Your task to perform on an android device: Add razer nari to the cart on ebay.com, then select checkout. Image 0: 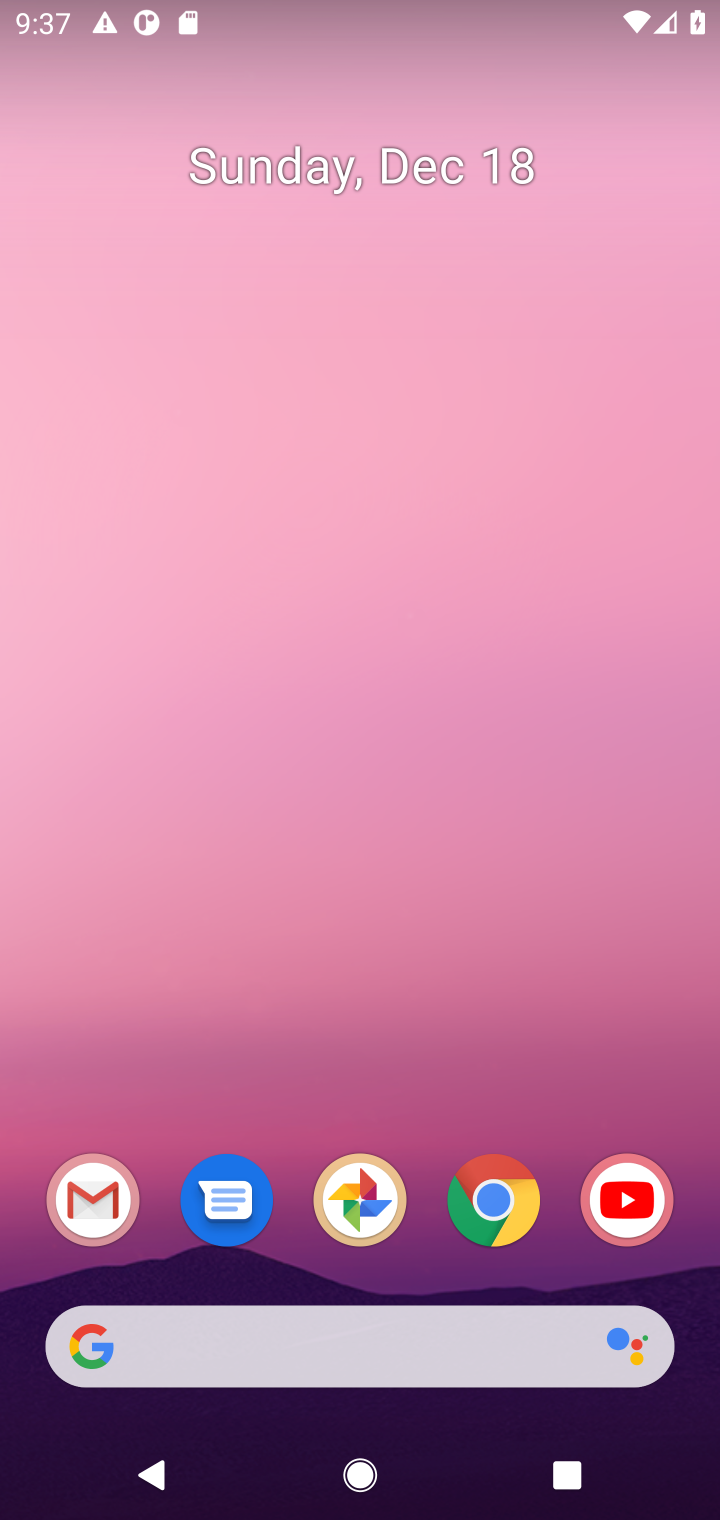
Step 0: click (490, 1211)
Your task to perform on an android device: Add razer nari to the cart on ebay.com, then select checkout. Image 1: 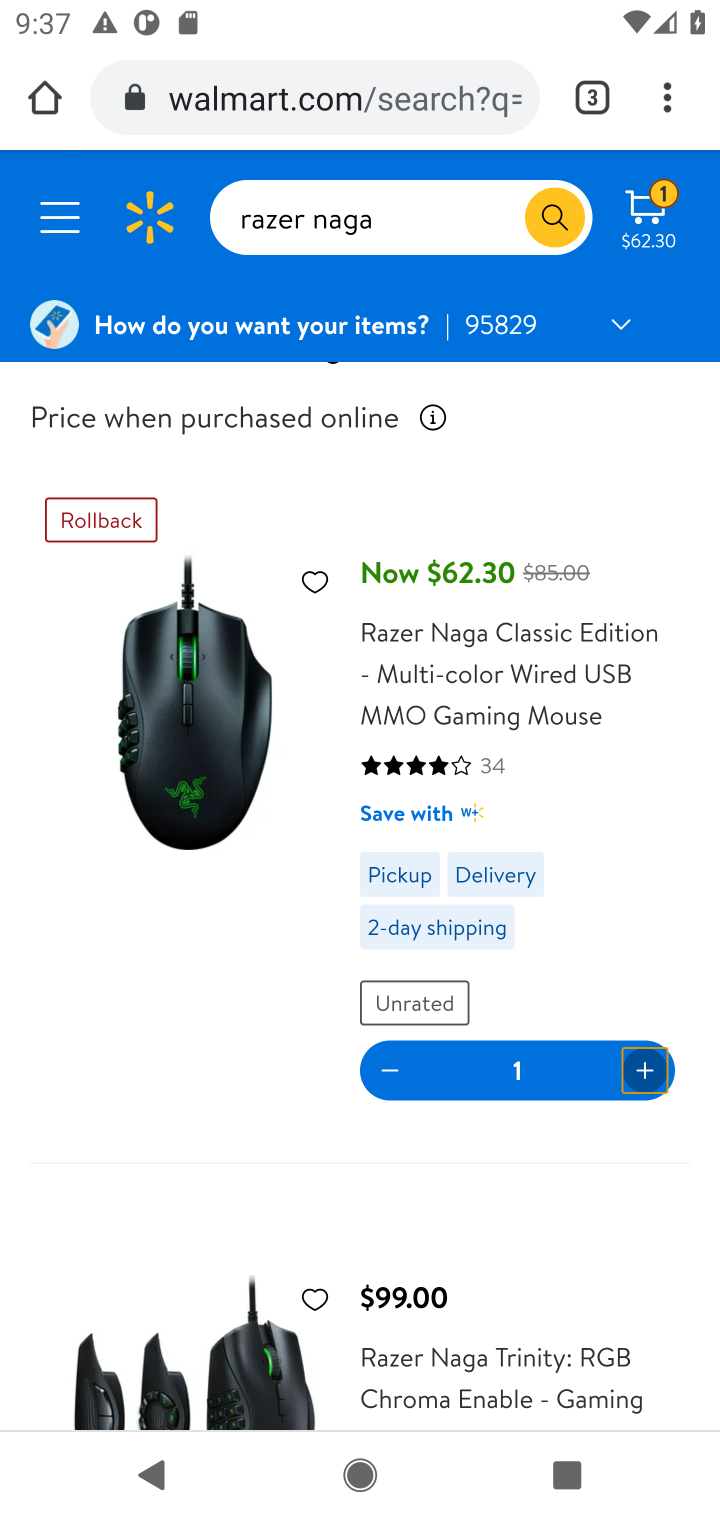
Step 1: click (244, 104)
Your task to perform on an android device: Add razer nari to the cart on ebay.com, then select checkout. Image 2: 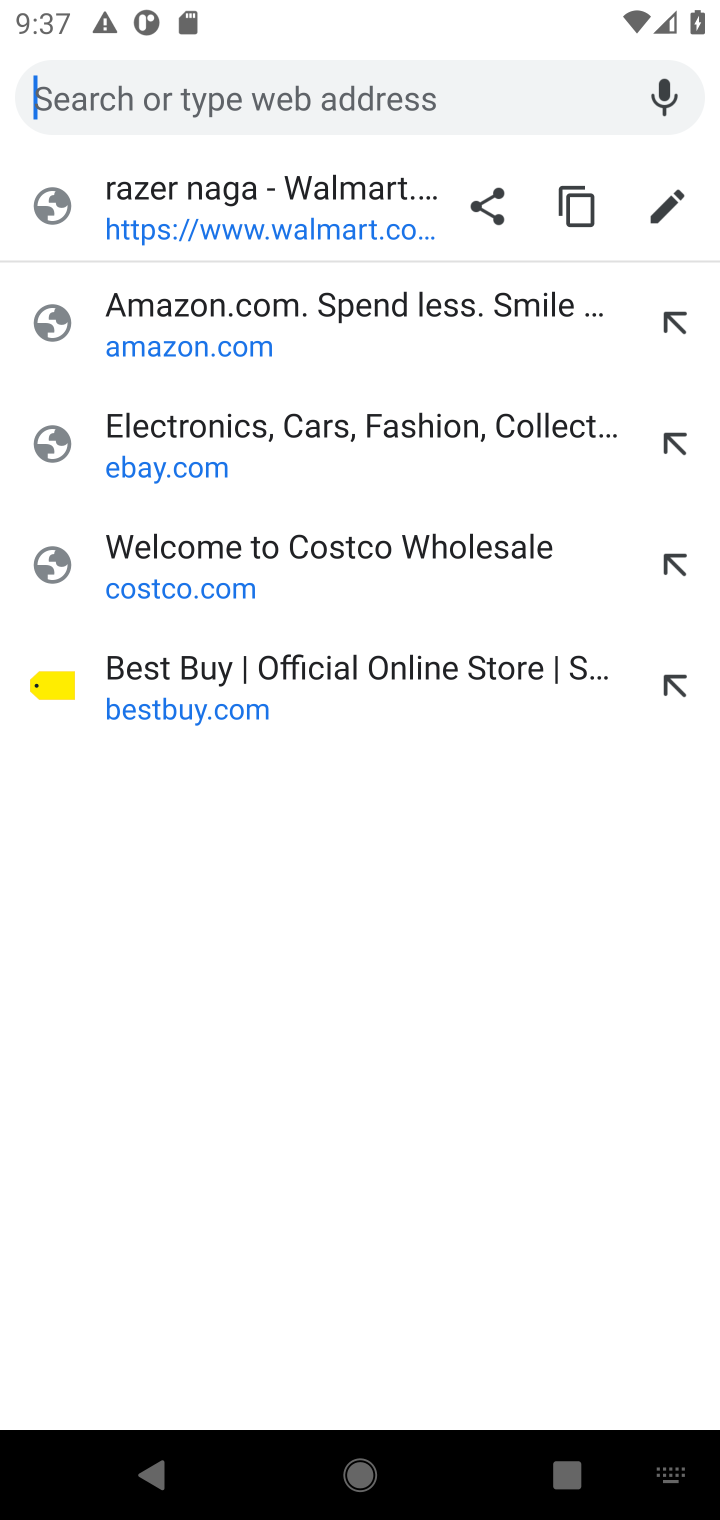
Step 2: click (160, 449)
Your task to perform on an android device: Add razer nari to the cart on ebay.com, then select checkout. Image 3: 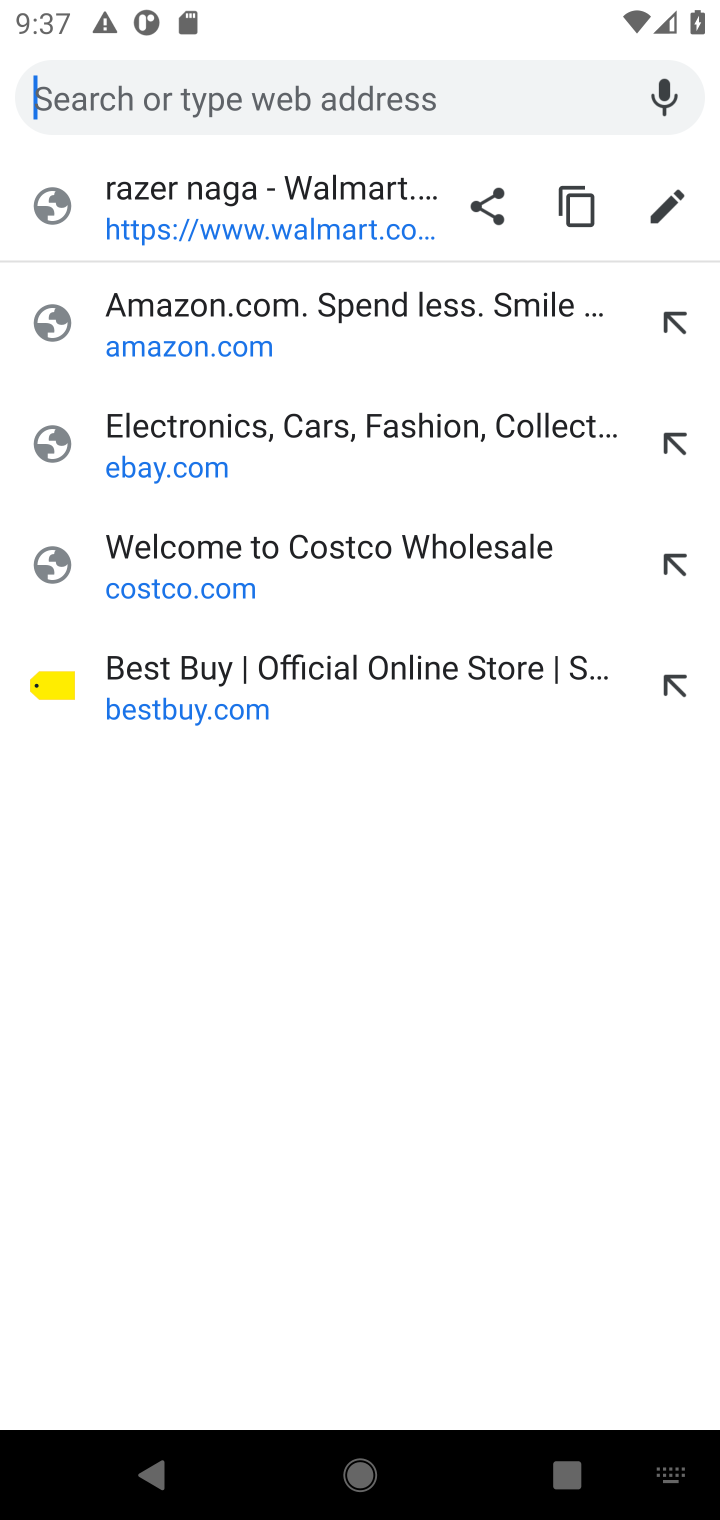
Step 3: click (168, 450)
Your task to perform on an android device: Add razer nari to the cart on ebay.com, then select checkout. Image 4: 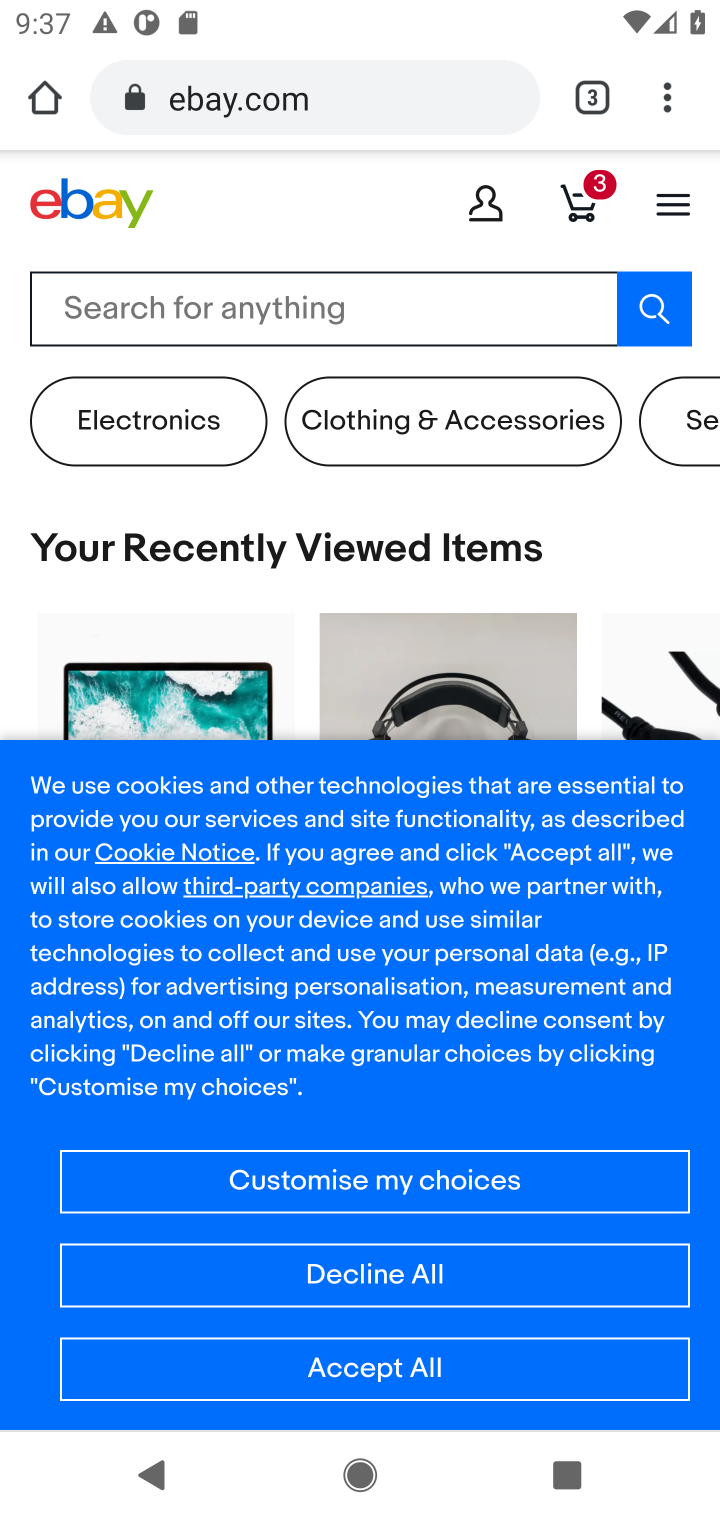
Step 4: click (149, 305)
Your task to perform on an android device: Add razer nari to the cart on ebay.com, then select checkout. Image 5: 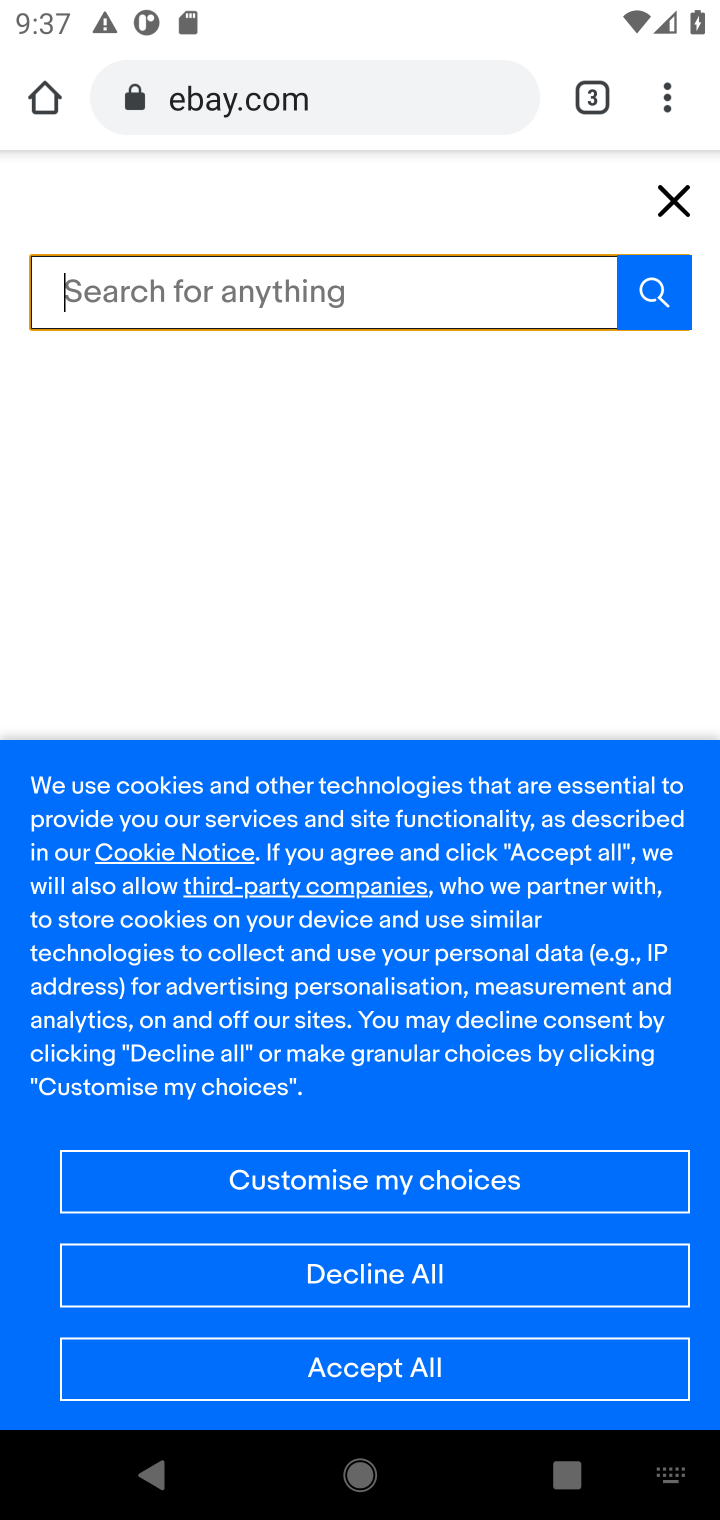
Step 5: type "razer nari "
Your task to perform on an android device: Add razer nari to the cart on ebay.com, then select checkout. Image 6: 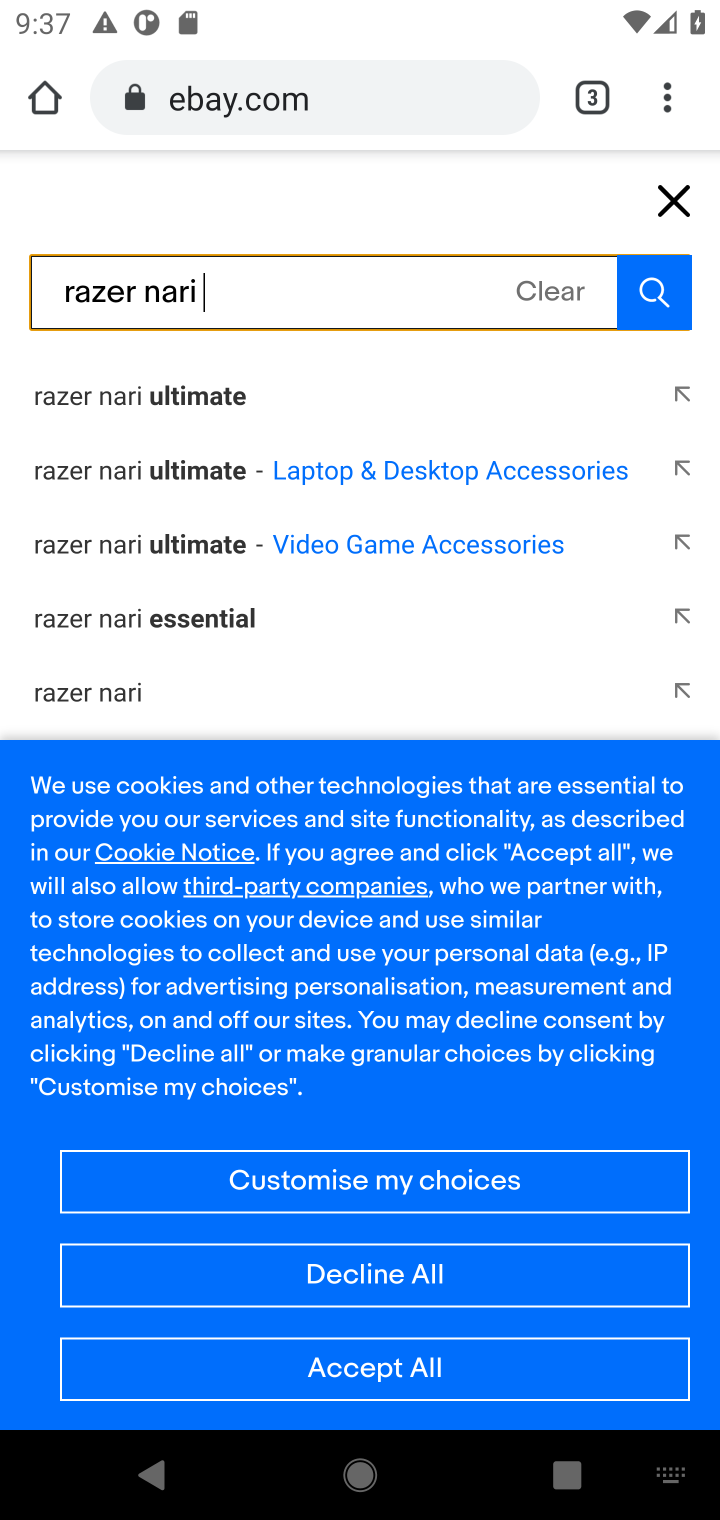
Step 6: click (99, 710)
Your task to perform on an android device: Add razer nari to the cart on ebay.com, then select checkout. Image 7: 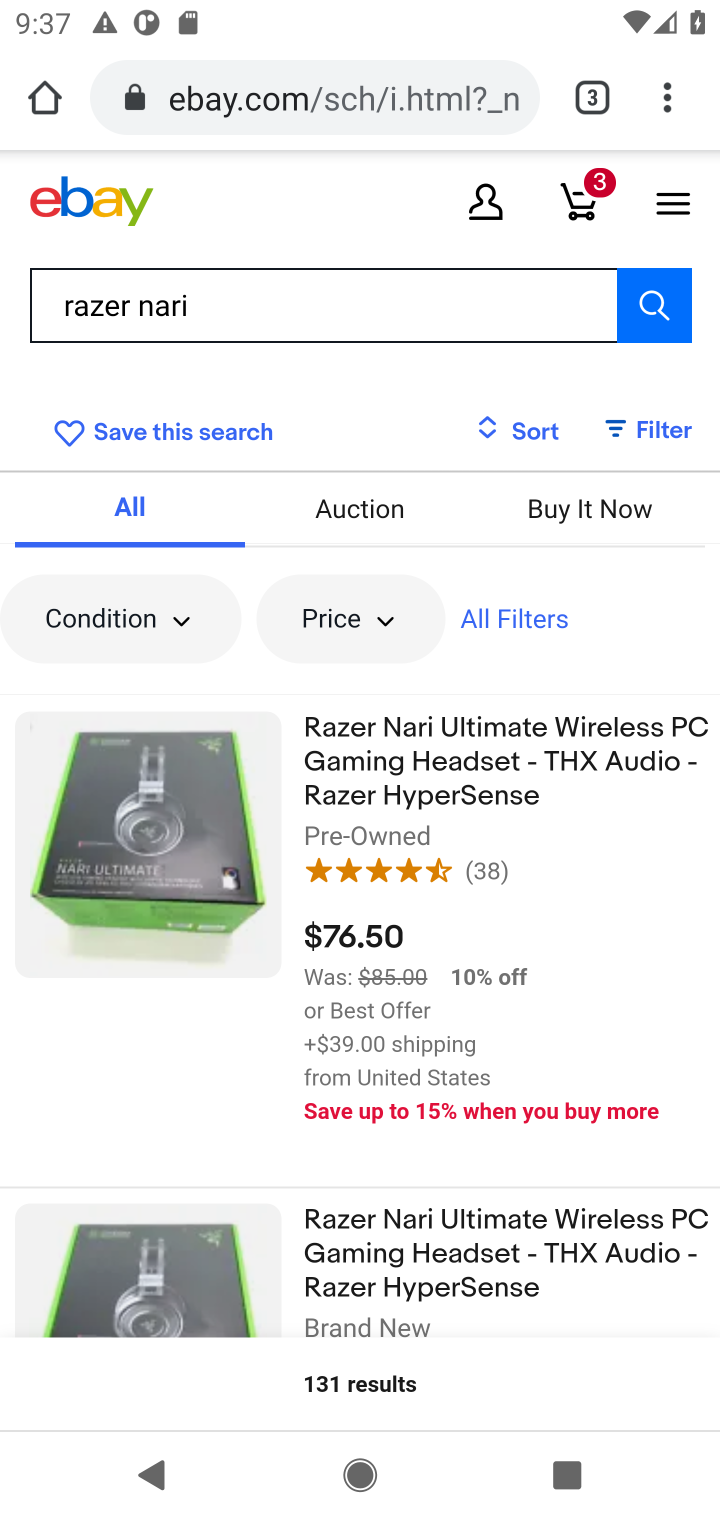
Step 7: click (452, 801)
Your task to perform on an android device: Add razer nari to the cart on ebay.com, then select checkout. Image 8: 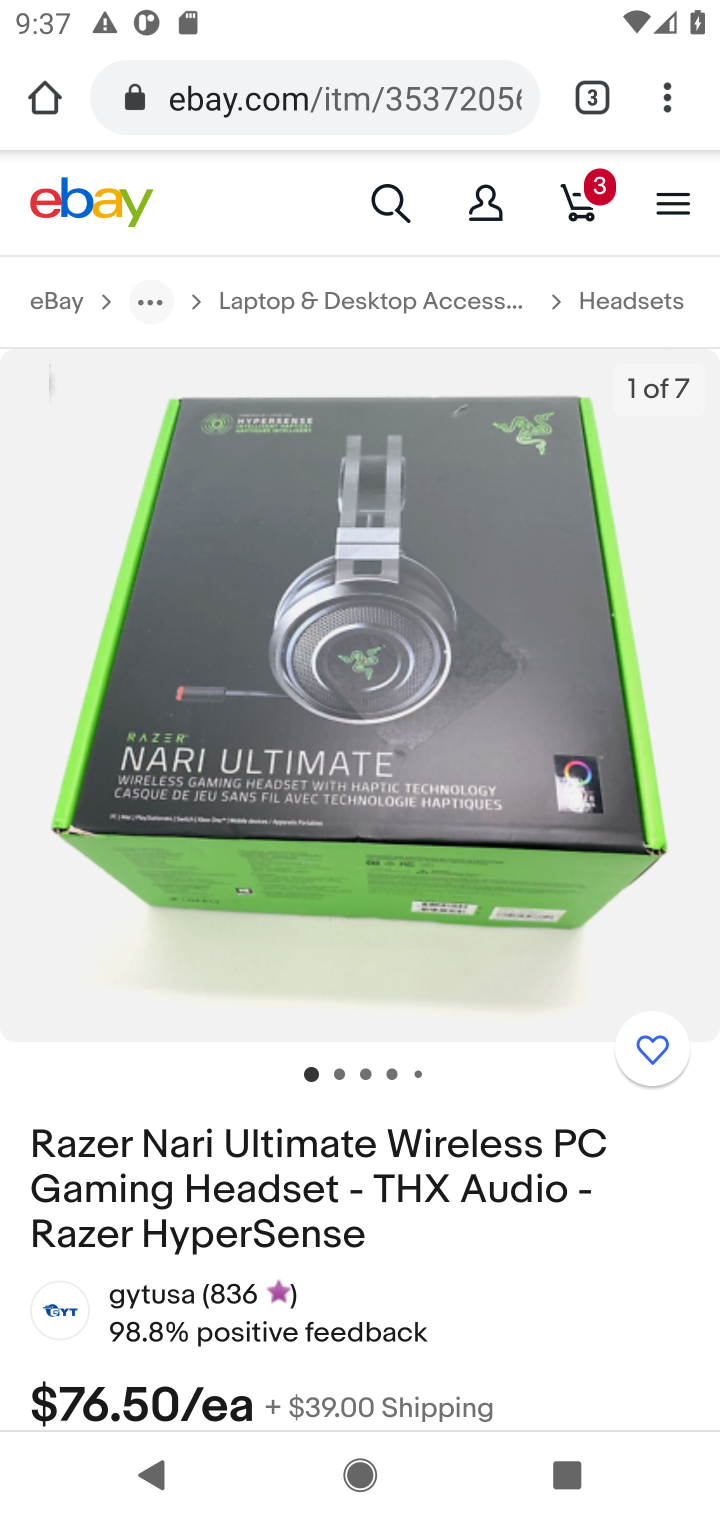
Step 8: drag from (281, 966) to (270, 478)
Your task to perform on an android device: Add razer nari to the cart on ebay.com, then select checkout. Image 9: 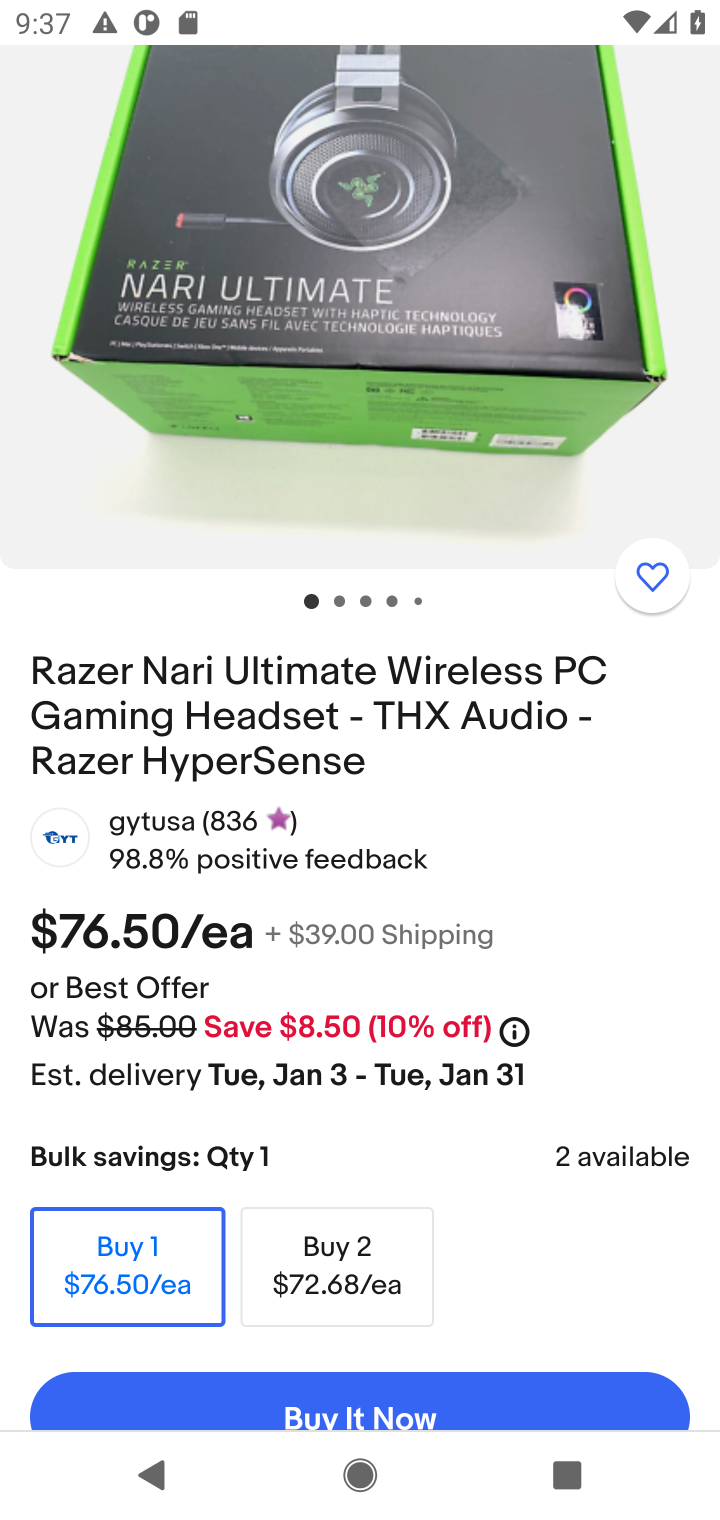
Step 9: drag from (341, 1036) to (341, 392)
Your task to perform on an android device: Add razer nari to the cart on ebay.com, then select checkout. Image 10: 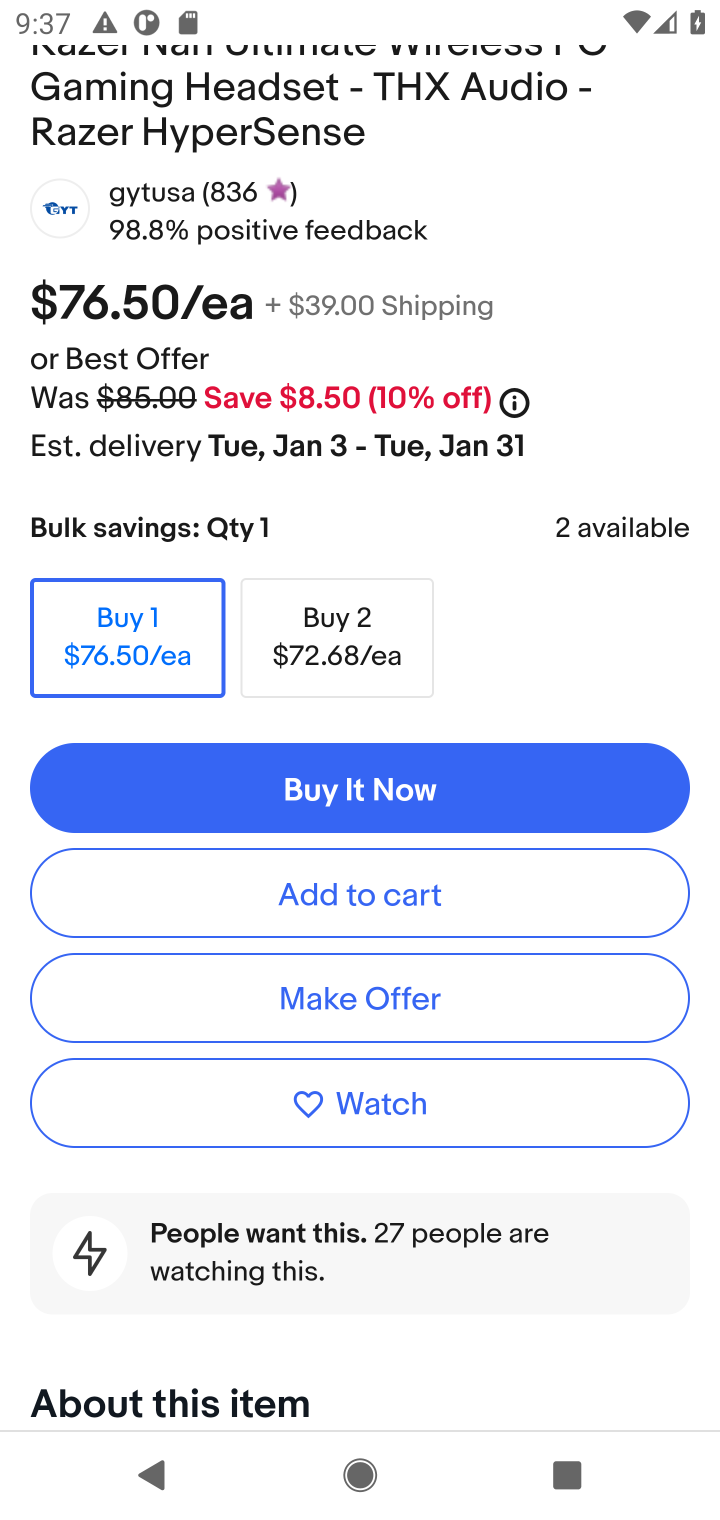
Step 10: click (311, 876)
Your task to perform on an android device: Add razer nari to the cart on ebay.com, then select checkout. Image 11: 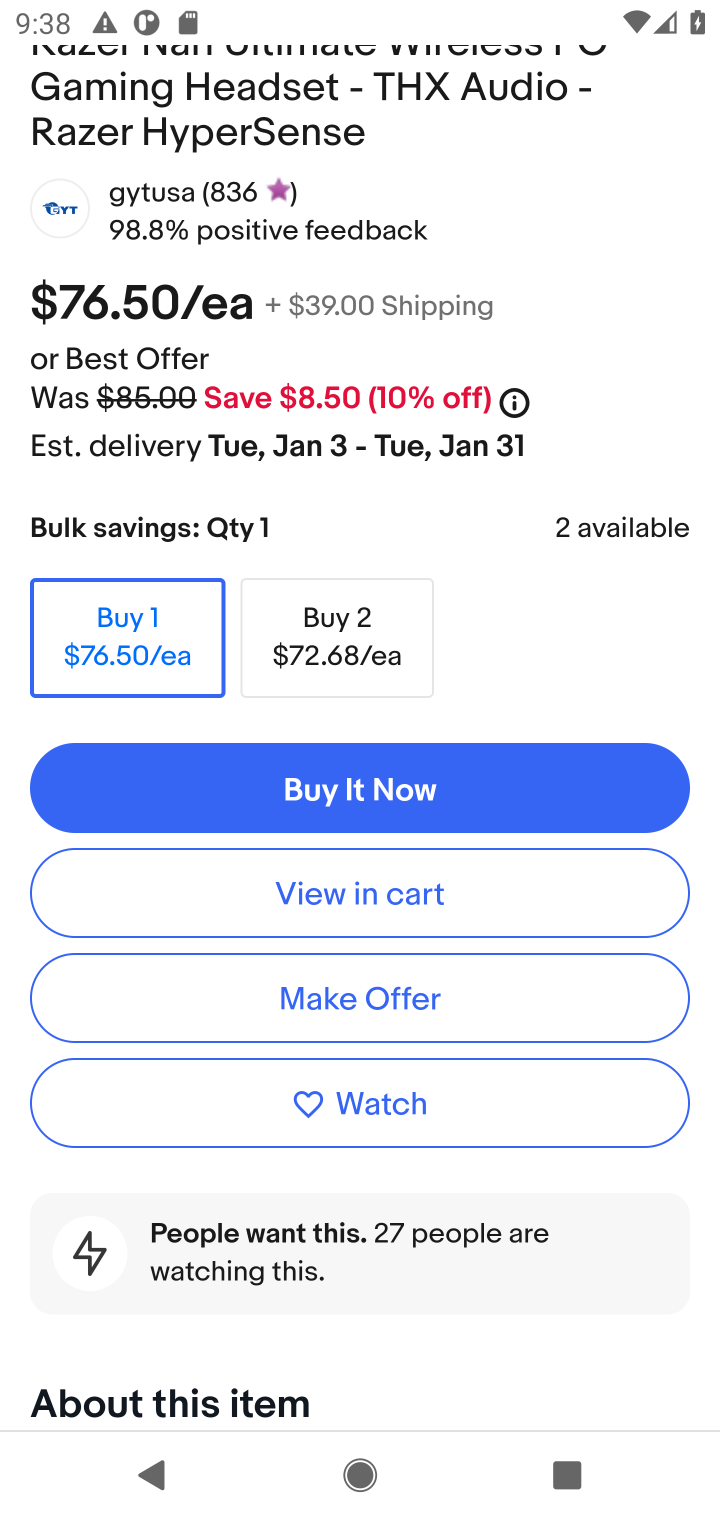
Step 11: click (305, 892)
Your task to perform on an android device: Add razer nari to the cart on ebay.com, then select checkout. Image 12: 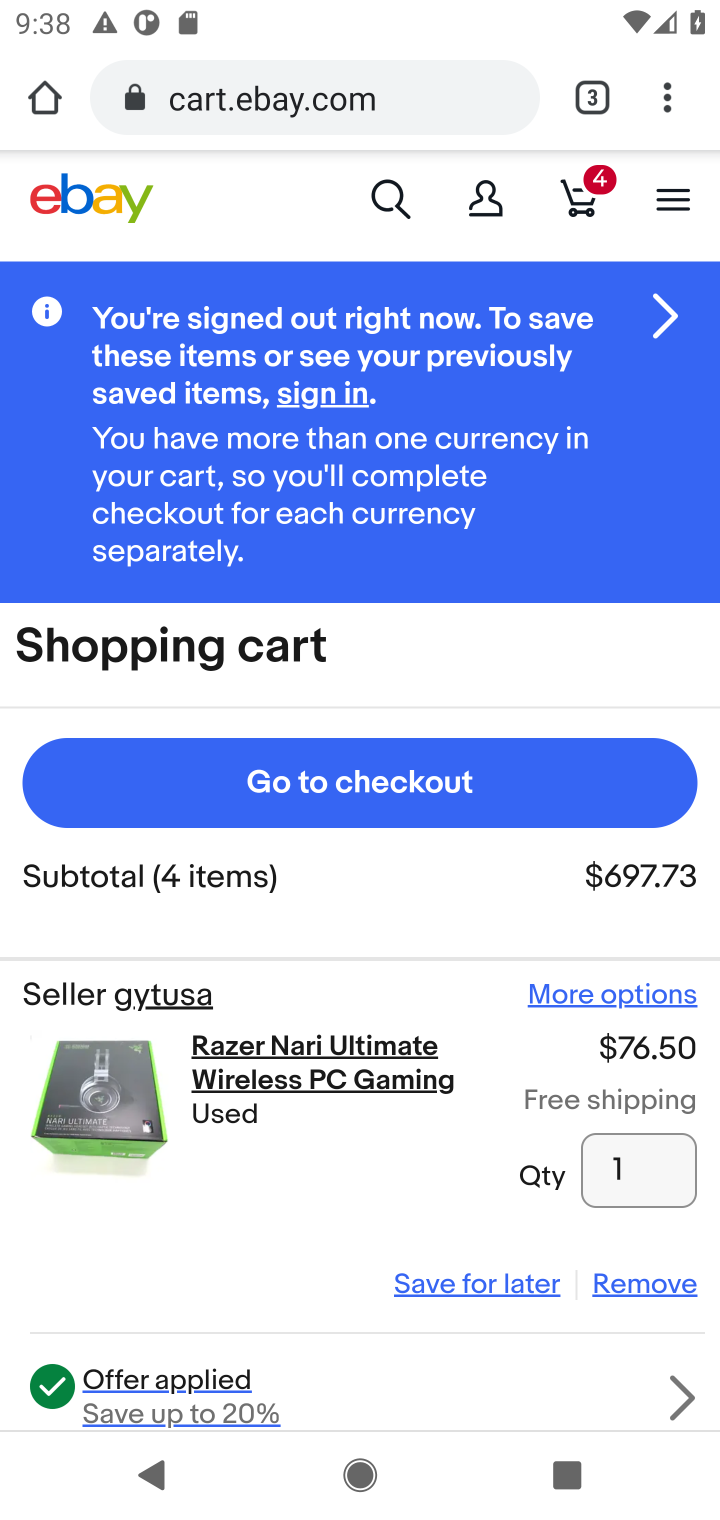
Step 12: click (309, 779)
Your task to perform on an android device: Add razer nari to the cart on ebay.com, then select checkout. Image 13: 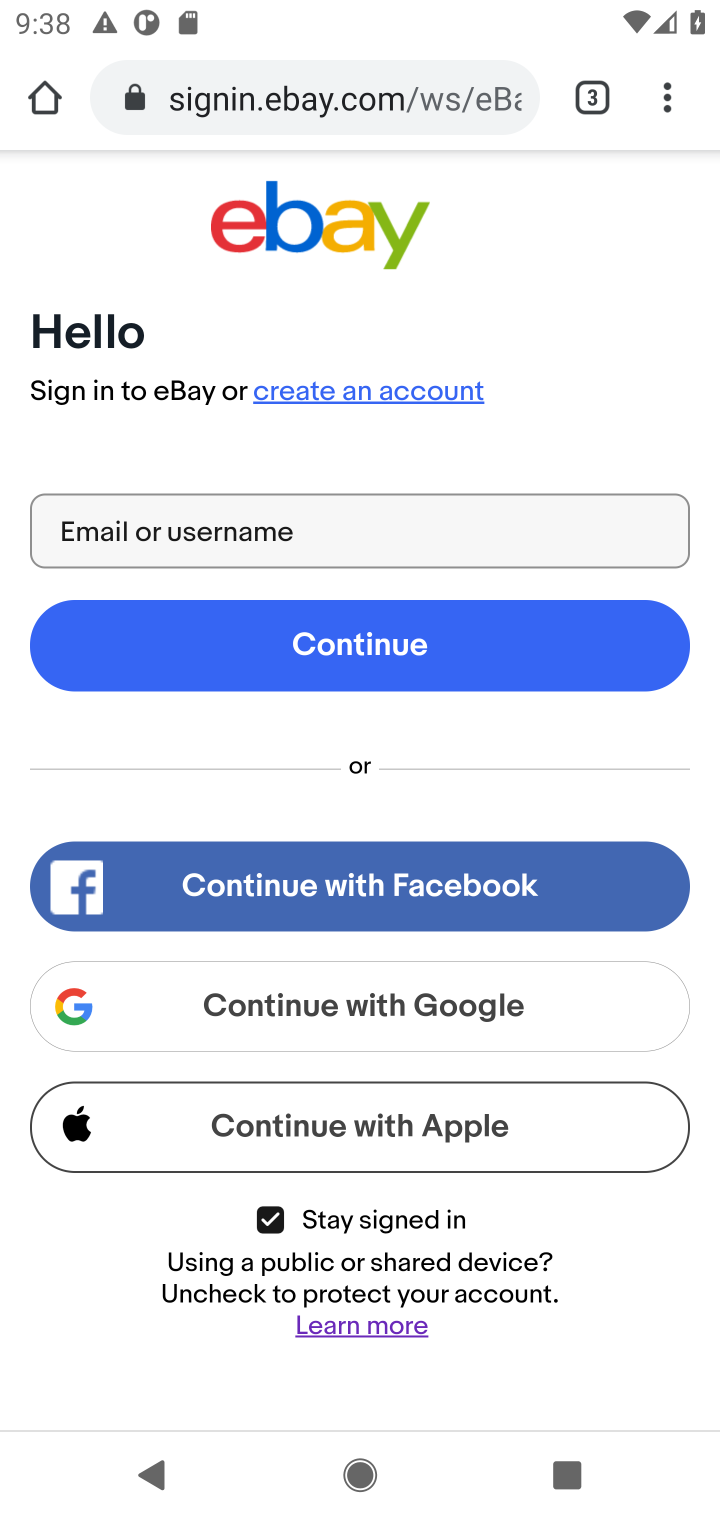
Step 13: task complete